Your task to perform on an android device: change notification settings in the gmail app Image 0: 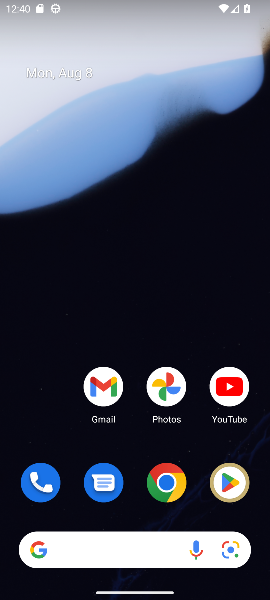
Step 0: drag from (165, 545) to (102, 173)
Your task to perform on an android device: change notification settings in the gmail app Image 1: 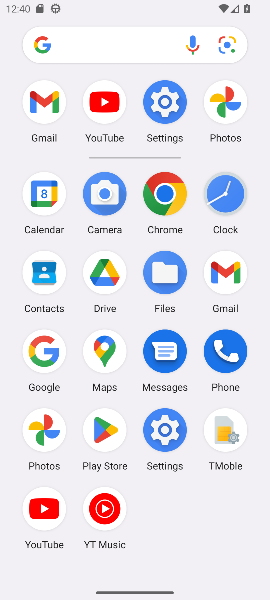
Step 1: click (234, 273)
Your task to perform on an android device: change notification settings in the gmail app Image 2: 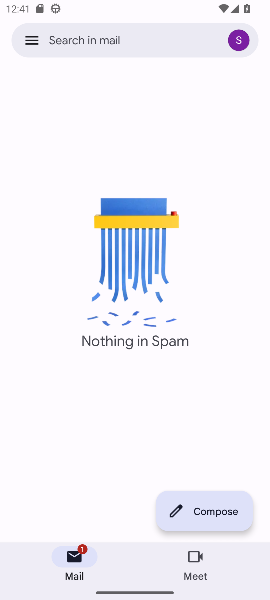
Step 2: click (28, 38)
Your task to perform on an android device: change notification settings in the gmail app Image 3: 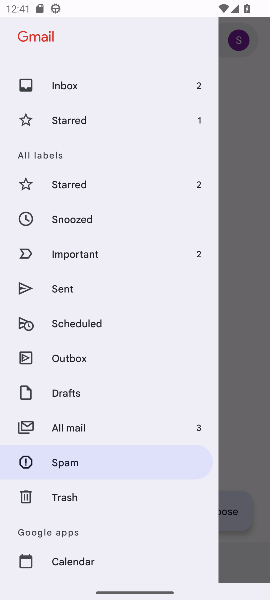
Step 3: drag from (121, 539) to (92, 375)
Your task to perform on an android device: change notification settings in the gmail app Image 4: 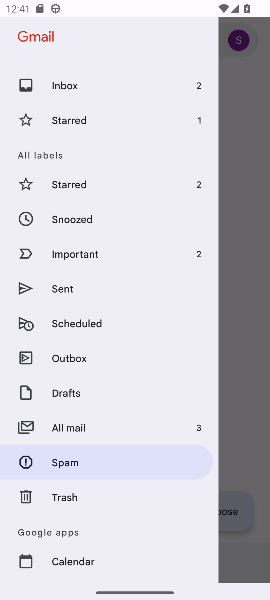
Step 4: drag from (161, 529) to (171, 410)
Your task to perform on an android device: change notification settings in the gmail app Image 5: 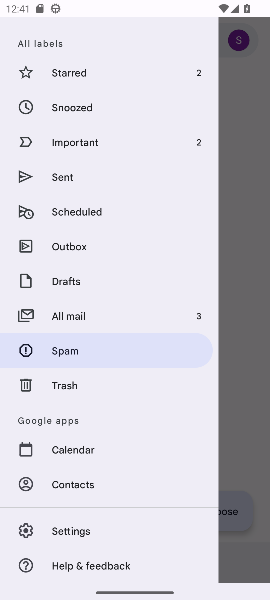
Step 5: click (68, 526)
Your task to perform on an android device: change notification settings in the gmail app Image 6: 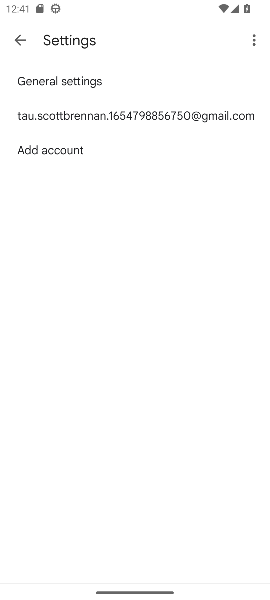
Step 6: click (76, 115)
Your task to perform on an android device: change notification settings in the gmail app Image 7: 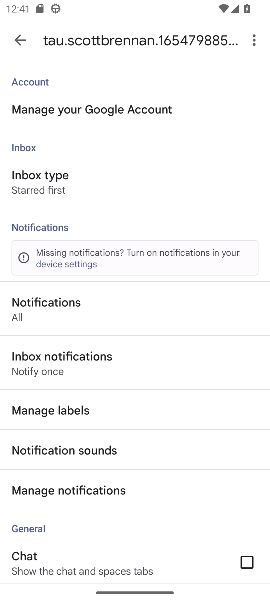
Step 7: click (94, 492)
Your task to perform on an android device: change notification settings in the gmail app Image 8: 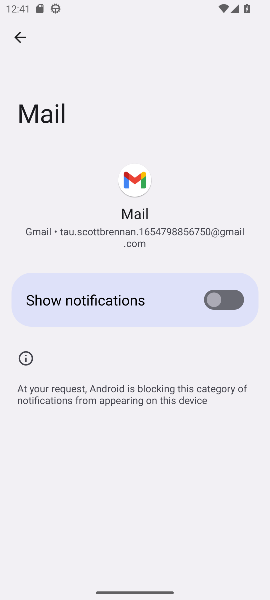
Step 8: click (224, 292)
Your task to perform on an android device: change notification settings in the gmail app Image 9: 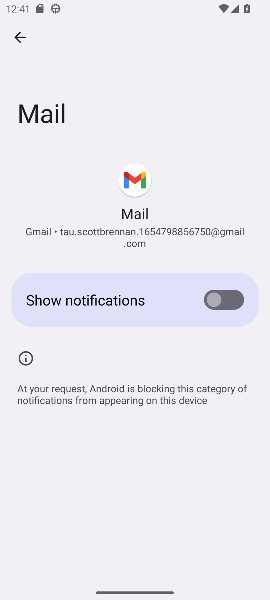
Step 9: task complete